Your task to perform on an android device: Search for Mexican restaurants on Maps Image 0: 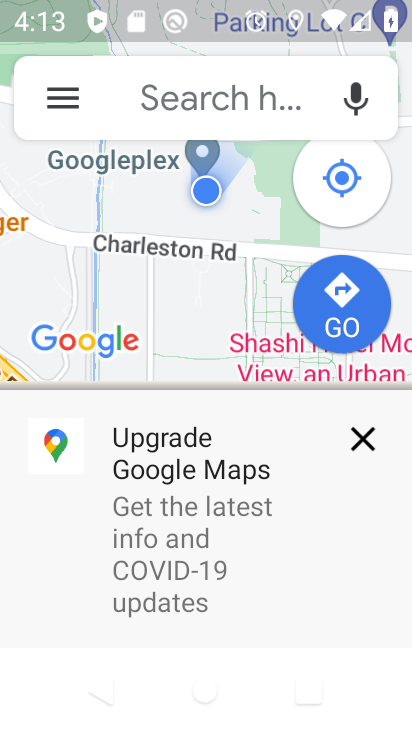
Step 0: press home button
Your task to perform on an android device: Search for Mexican restaurants on Maps Image 1: 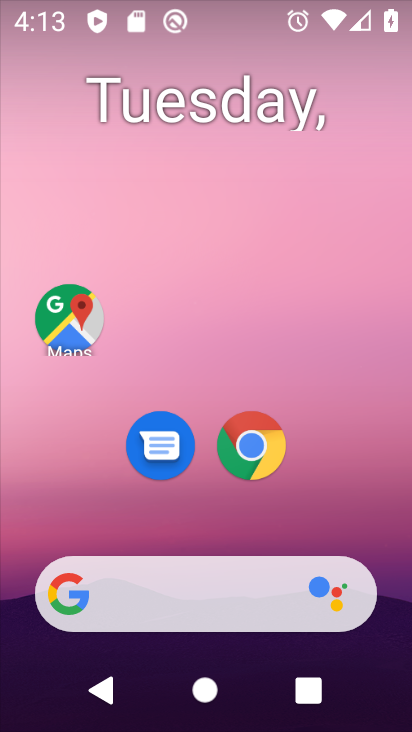
Step 1: click (81, 335)
Your task to perform on an android device: Search for Mexican restaurants on Maps Image 2: 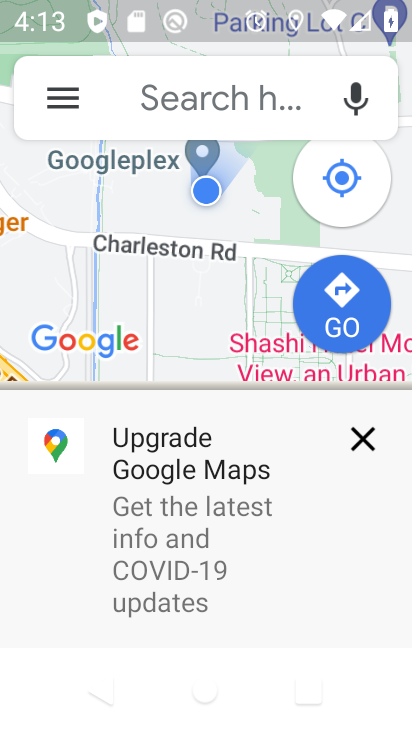
Step 2: click (81, 335)
Your task to perform on an android device: Search for Mexican restaurants on Maps Image 3: 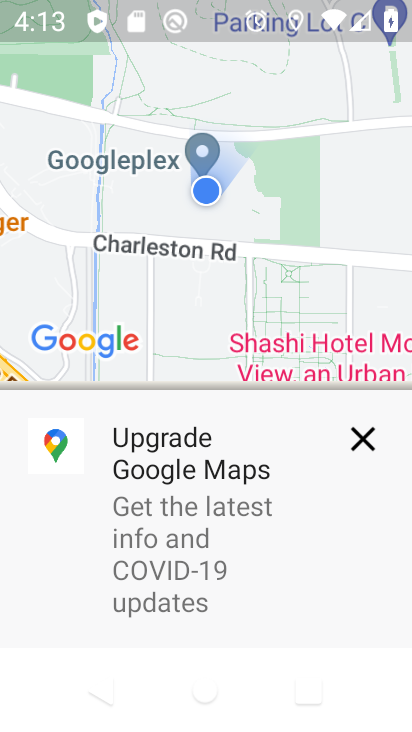
Step 3: click (198, 257)
Your task to perform on an android device: Search for Mexican restaurants on Maps Image 4: 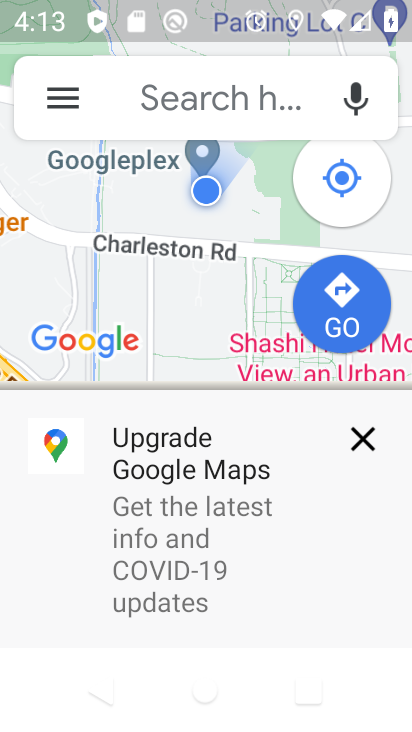
Step 4: click (199, 112)
Your task to perform on an android device: Search for Mexican restaurants on Maps Image 5: 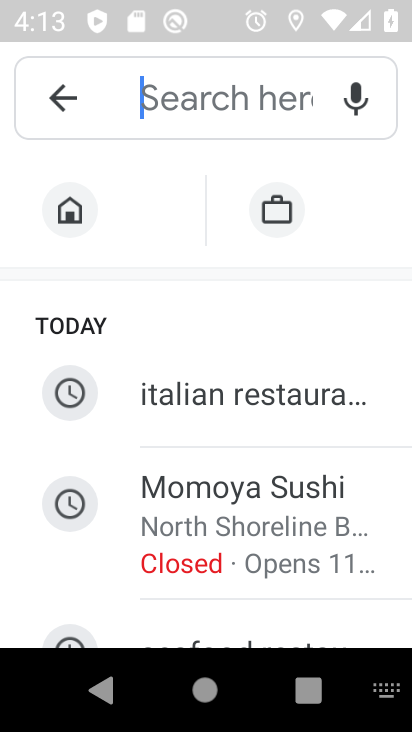
Step 5: drag from (284, 462) to (360, 128)
Your task to perform on an android device: Search for Mexican restaurants on Maps Image 6: 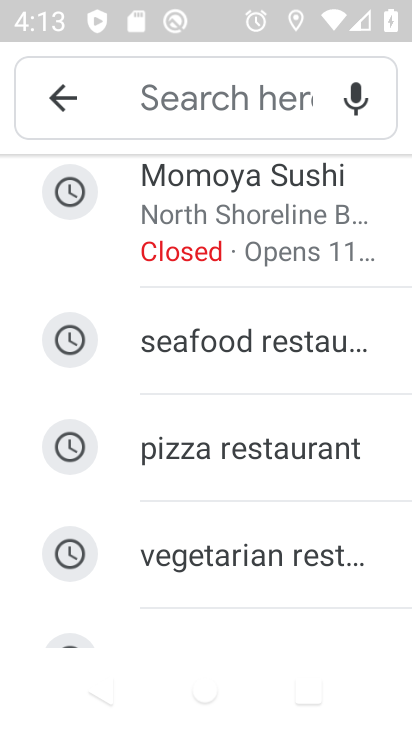
Step 6: drag from (304, 564) to (331, 260)
Your task to perform on an android device: Search for Mexican restaurants on Maps Image 7: 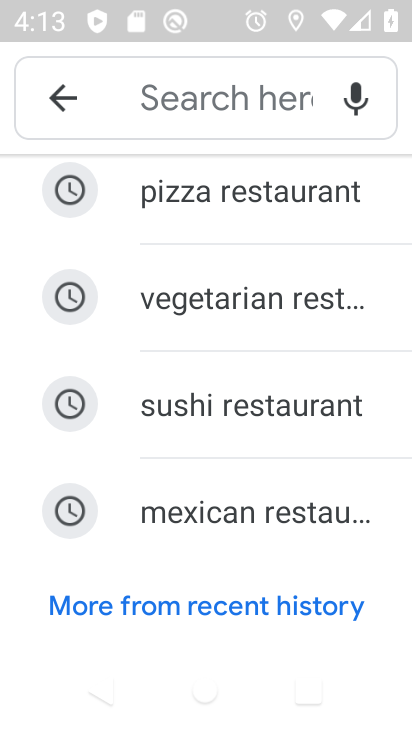
Step 7: click (360, 489)
Your task to perform on an android device: Search for Mexican restaurants on Maps Image 8: 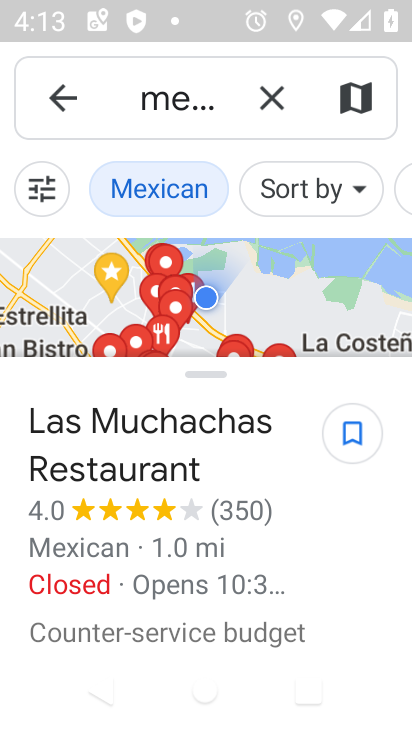
Step 8: task complete